Your task to perform on an android device: View the shopping cart on costco.com. Image 0: 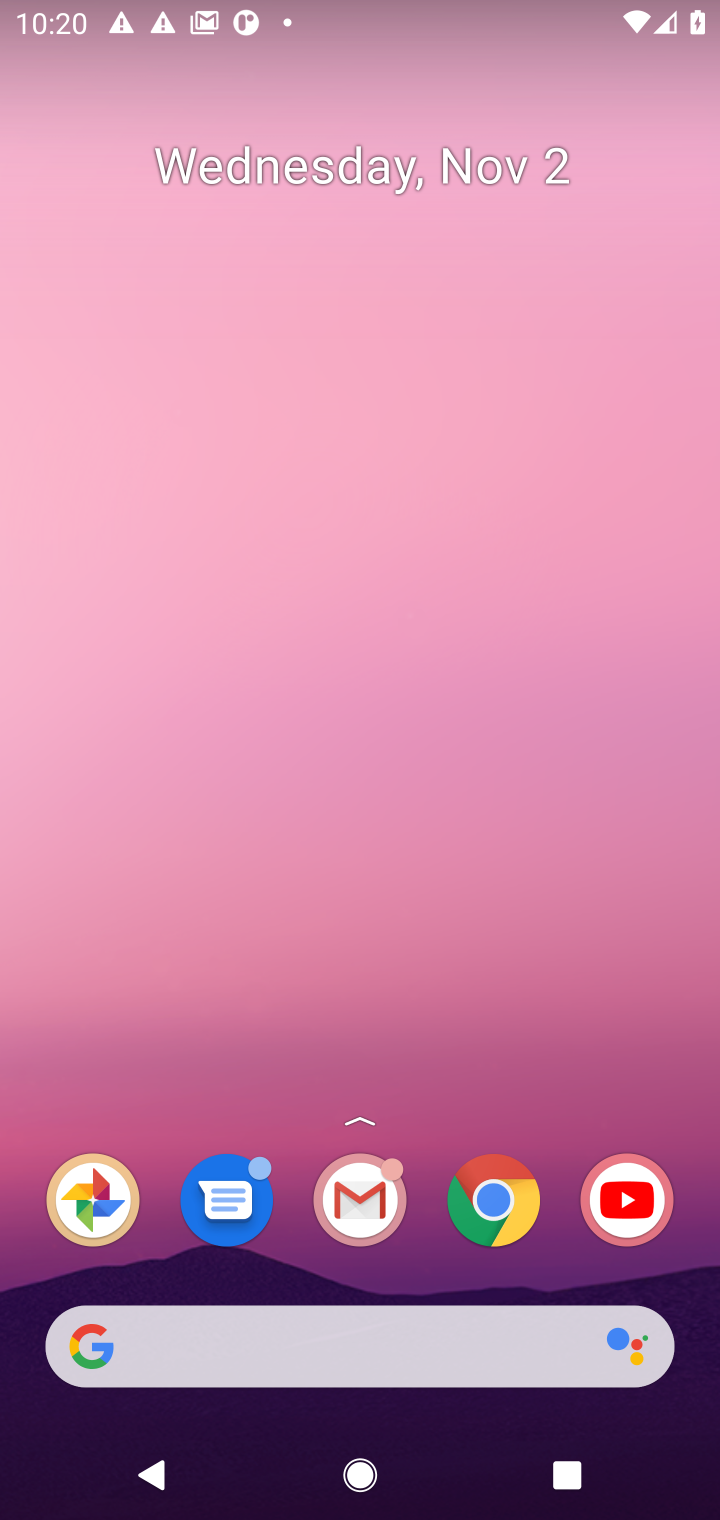
Step 0: click (486, 1196)
Your task to perform on an android device: View the shopping cart on costco.com. Image 1: 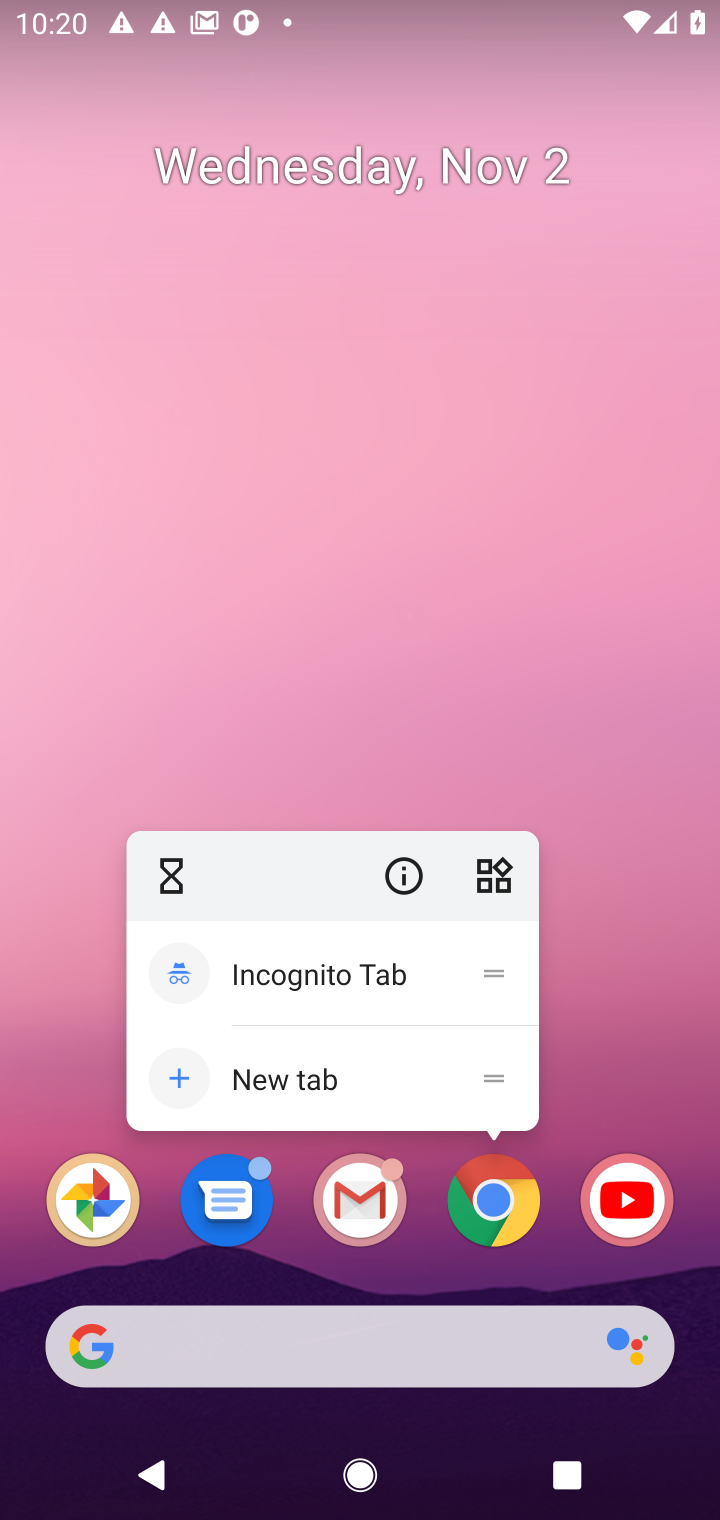
Step 1: click (486, 1196)
Your task to perform on an android device: View the shopping cart on costco.com. Image 2: 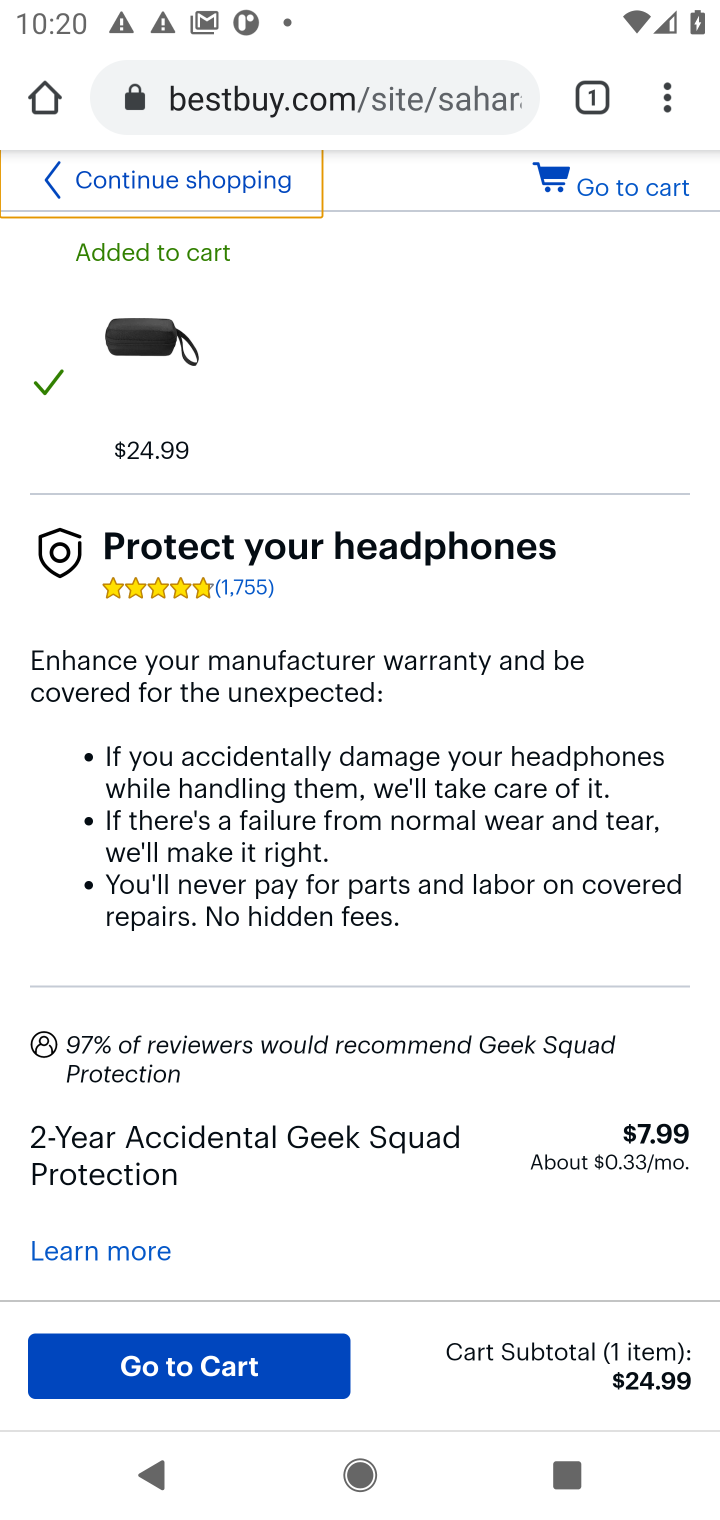
Step 2: click (355, 82)
Your task to perform on an android device: View the shopping cart on costco.com. Image 3: 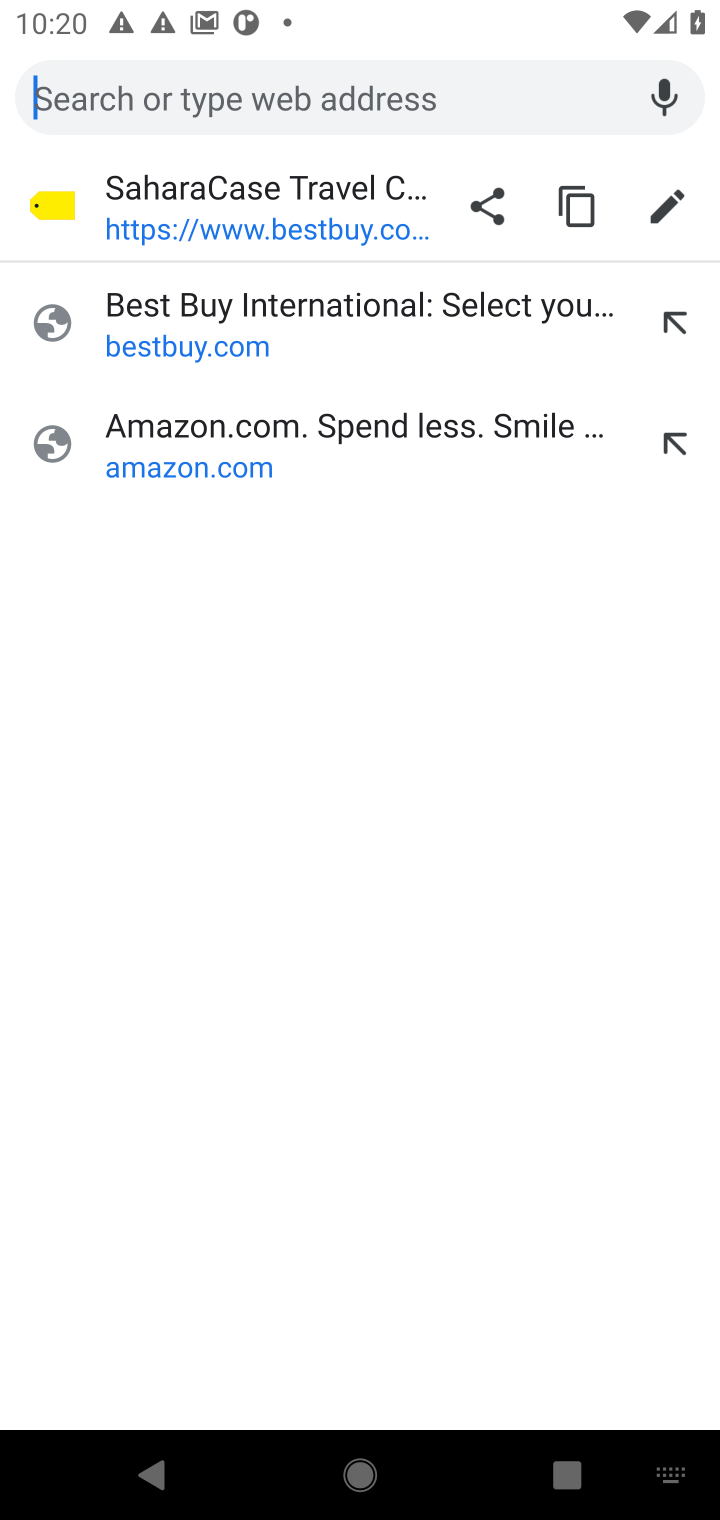
Step 3: type "costco.com"
Your task to perform on an android device: View the shopping cart on costco.com. Image 4: 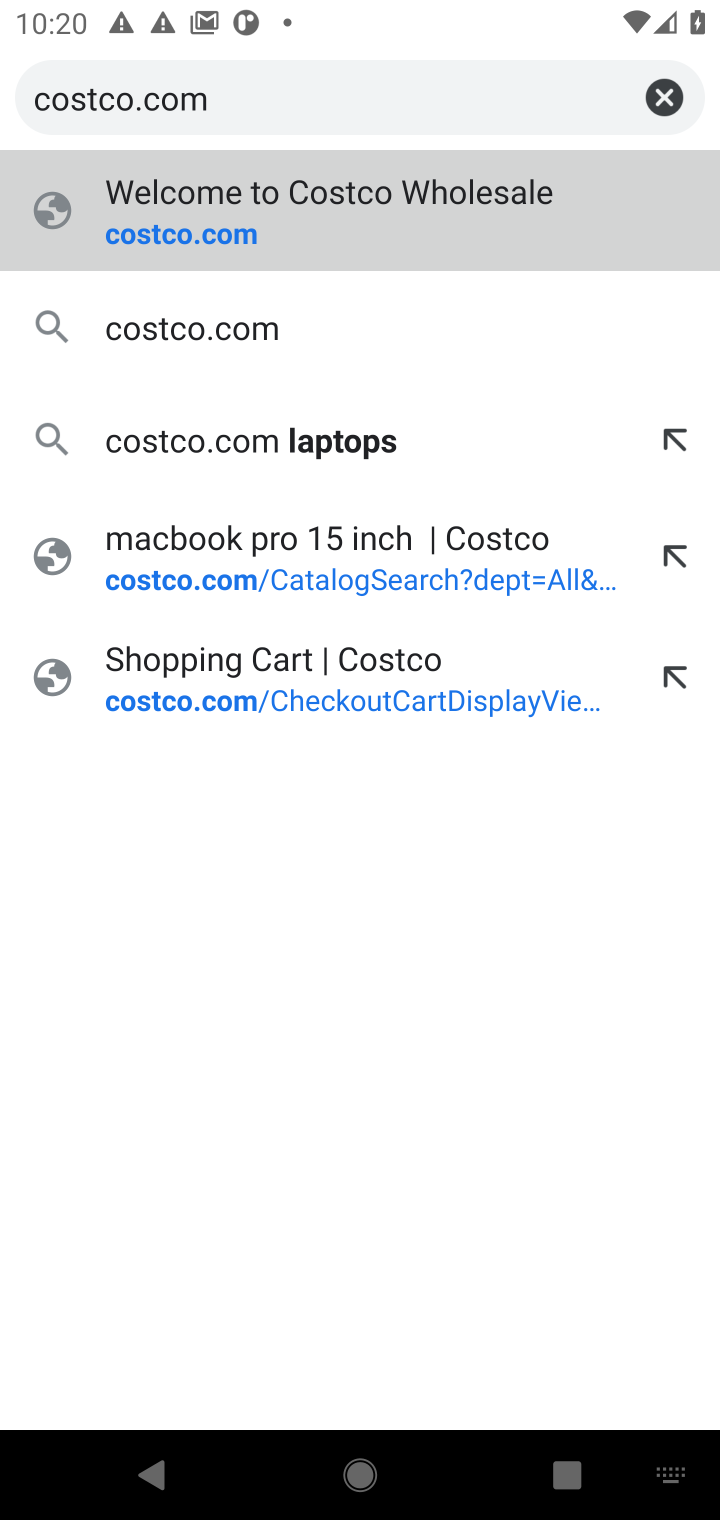
Step 4: press enter
Your task to perform on an android device: View the shopping cart on costco.com. Image 5: 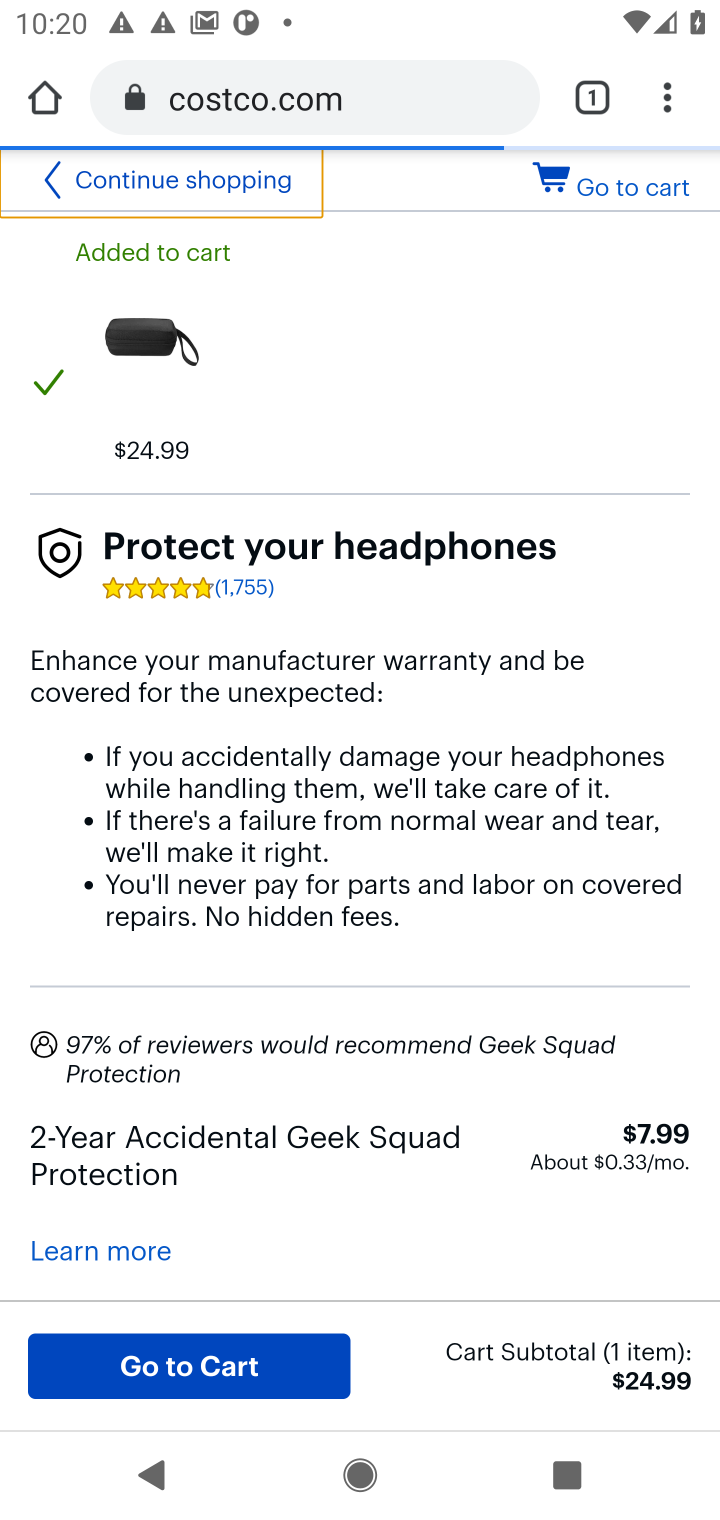
Step 5: click (282, 331)
Your task to perform on an android device: View the shopping cart on costco.com. Image 6: 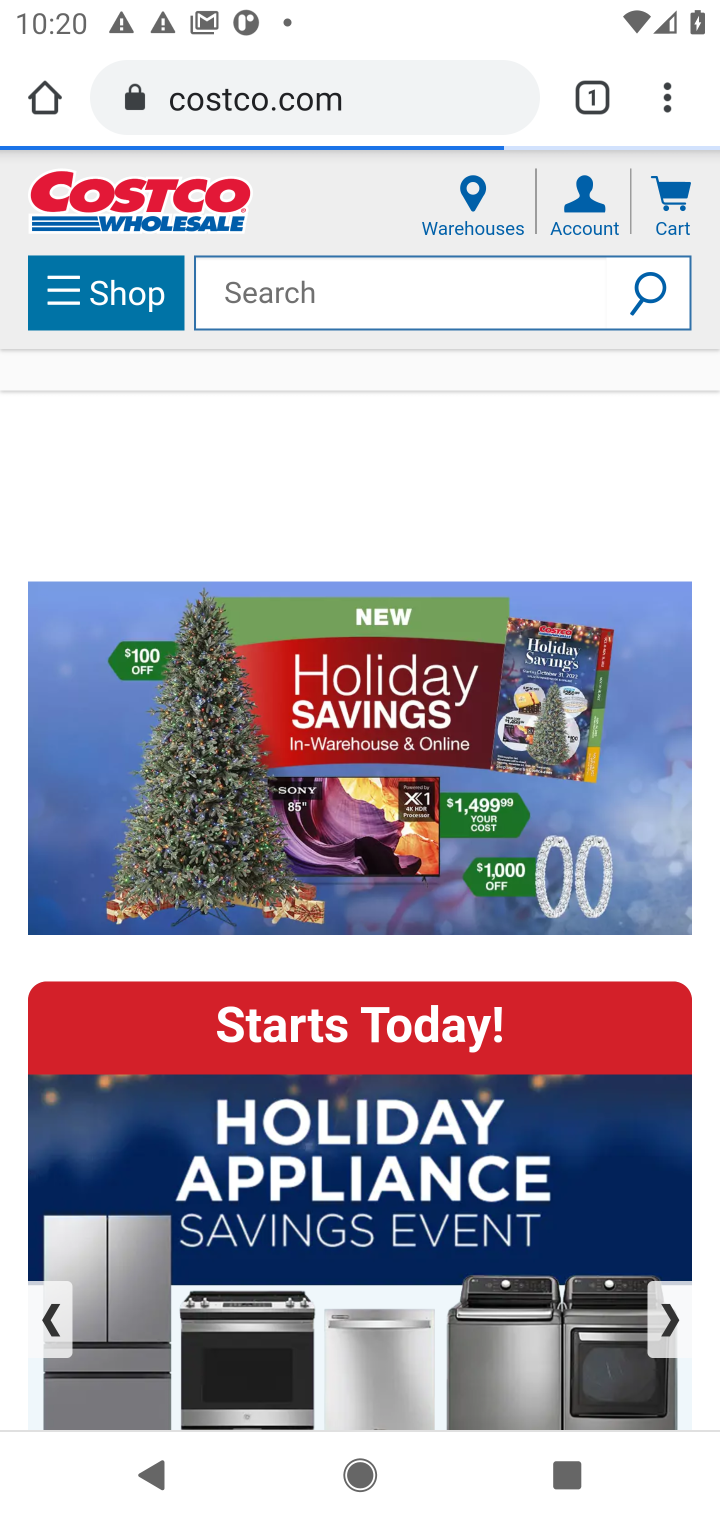
Step 6: click (666, 193)
Your task to perform on an android device: View the shopping cart on costco.com. Image 7: 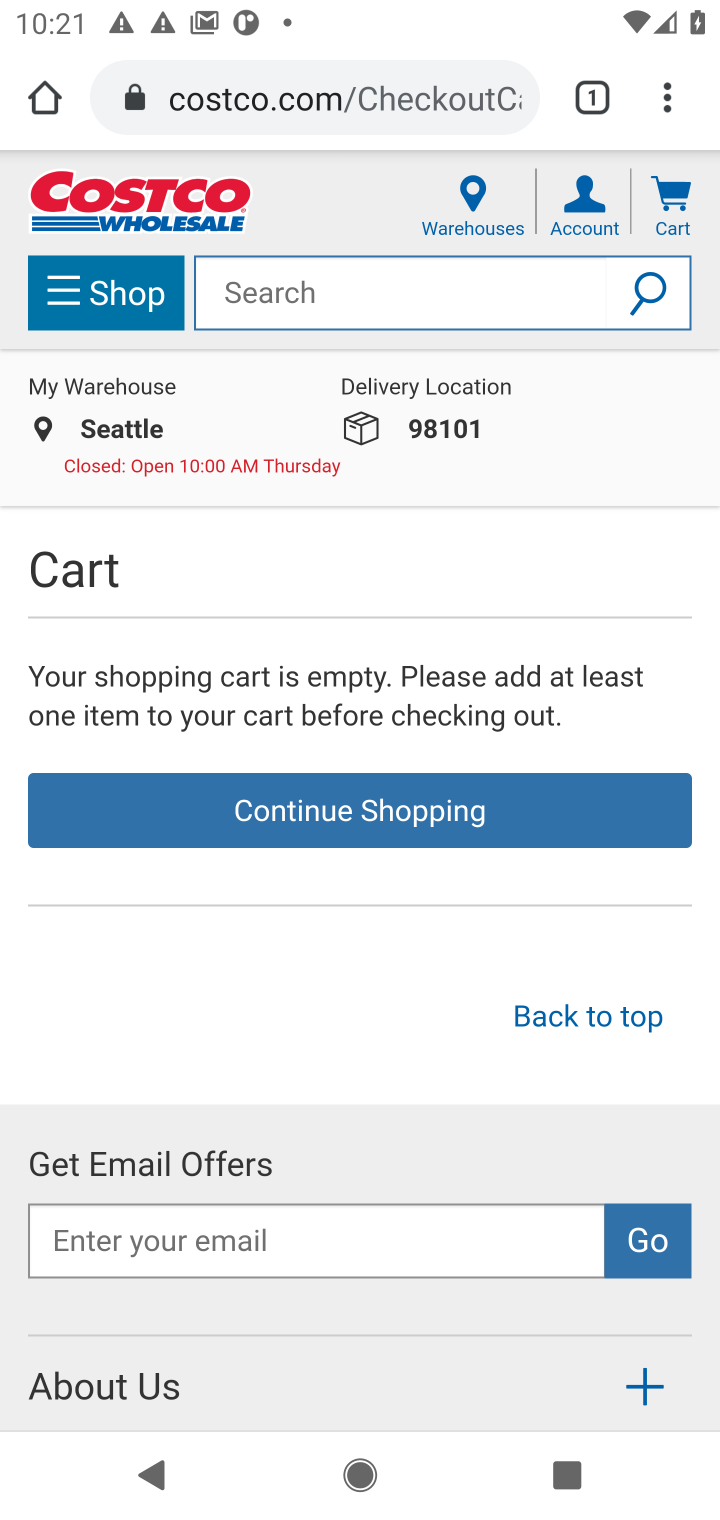
Step 7: task complete